Your task to perform on an android device: turn off improve location accuracy Image 0: 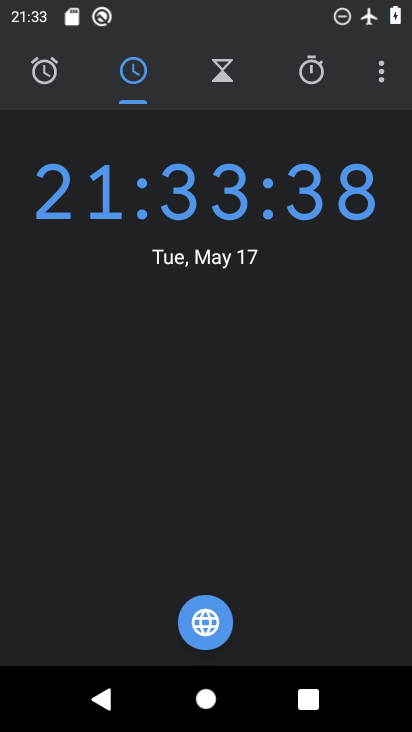
Step 0: press home button
Your task to perform on an android device: turn off improve location accuracy Image 1: 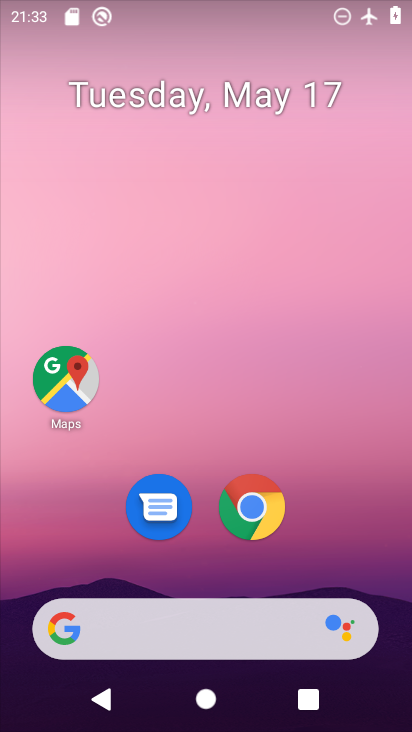
Step 1: drag from (358, 507) to (322, 3)
Your task to perform on an android device: turn off improve location accuracy Image 2: 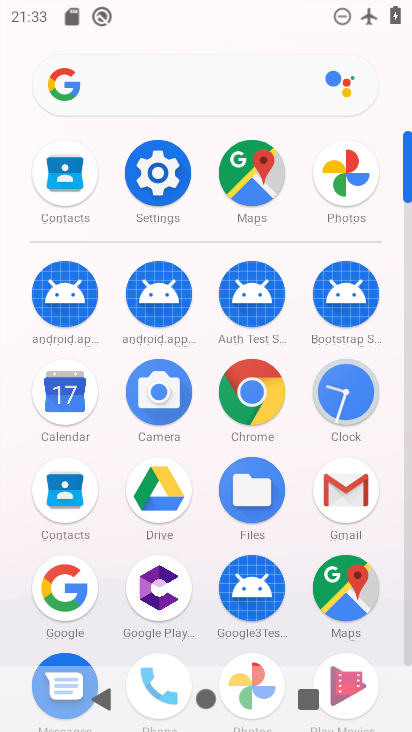
Step 2: click (156, 180)
Your task to perform on an android device: turn off improve location accuracy Image 3: 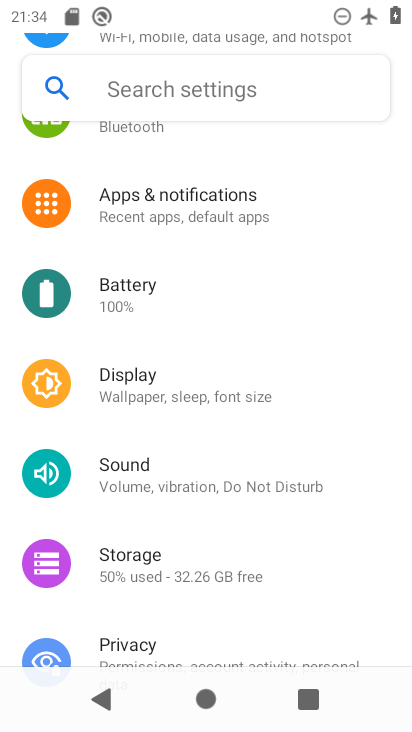
Step 3: drag from (180, 557) to (200, 348)
Your task to perform on an android device: turn off improve location accuracy Image 4: 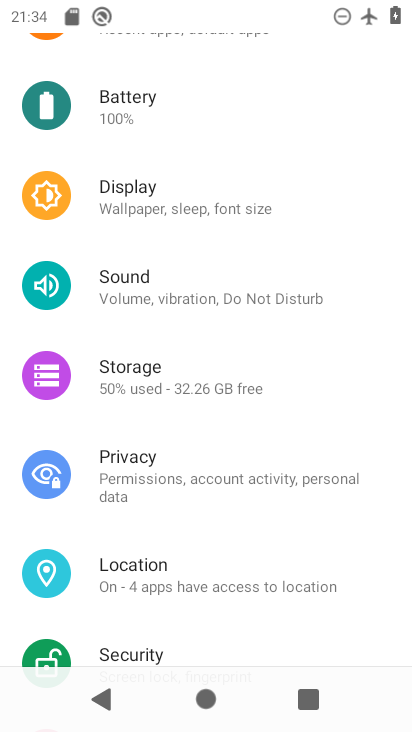
Step 4: click (102, 554)
Your task to perform on an android device: turn off improve location accuracy Image 5: 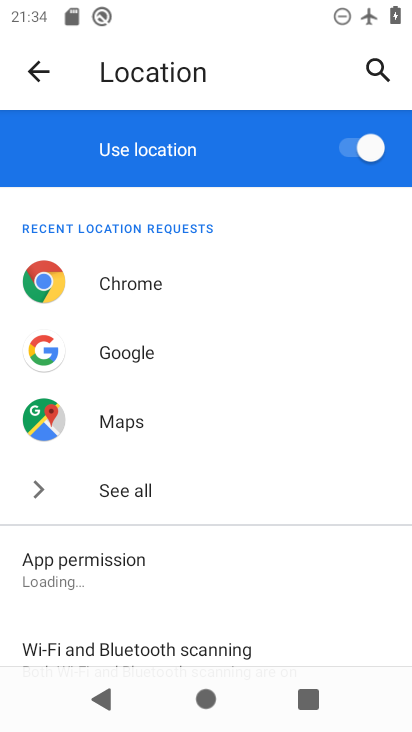
Step 5: drag from (113, 503) to (119, 236)
Your task to perform on an android device: turn off improve location accuracy Image 6: 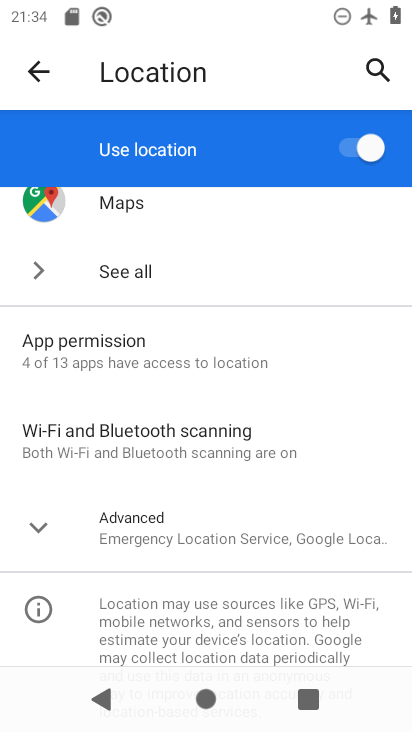
Step 6: click (38, 542)
Your task to perform on an android device: turn off improve location accuracy Image 7: 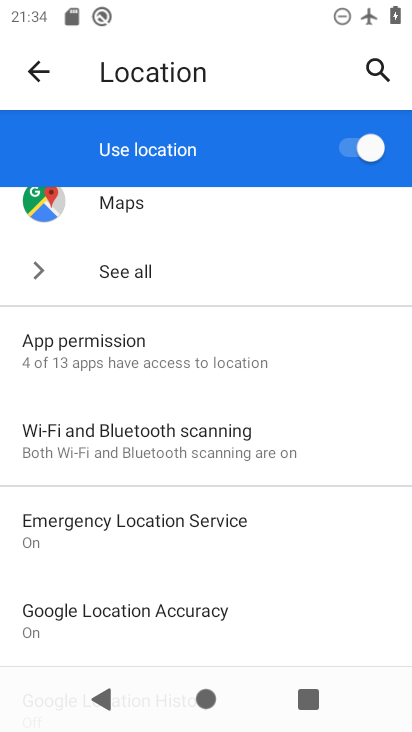
Step 7: click (38, 598)
Your task to perform on an android device: turn off improve location accuracy Image 8: 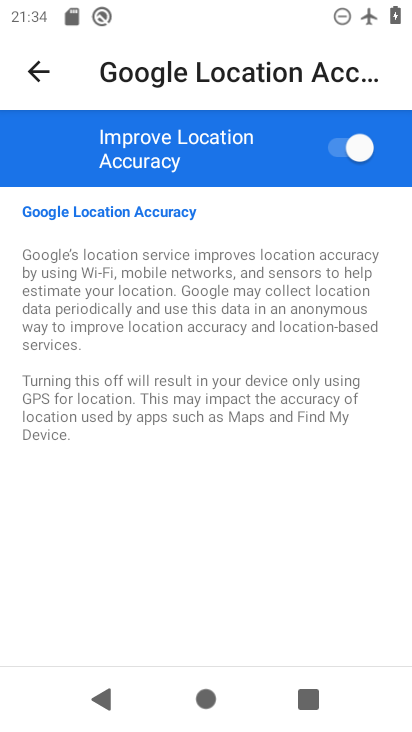
Step 8: click (357, 161)
Your task to perform on an android device: turn off improve location accuracy Image 9: 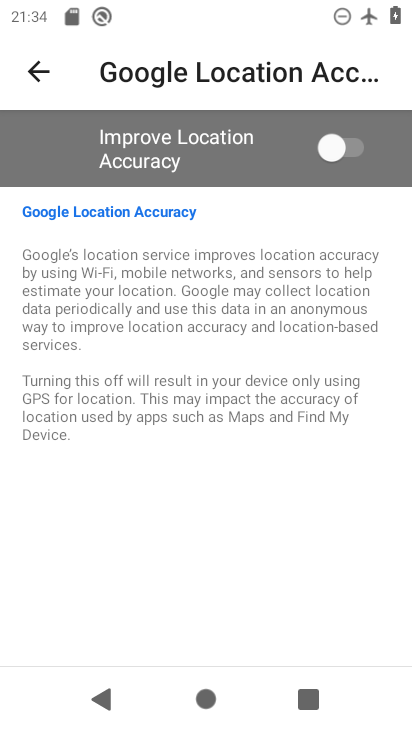
Step 9: task complete